Your task to perform on an android device: toggle data saver in the chrome app Image 0: 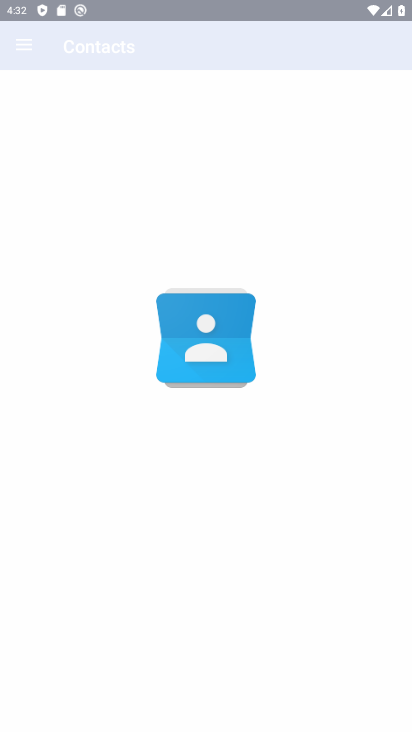
Step 0: drag from (211, 636) to (188, 278)
Your task to perform on an android device: toggle data saver in the chrome app Image 1: 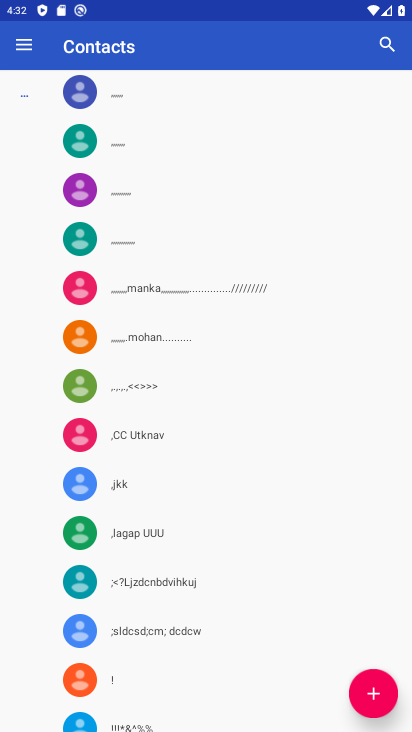
Step 1: press home button
Your task to perform on an android device: toggle data saver in the chrome app Image 2: 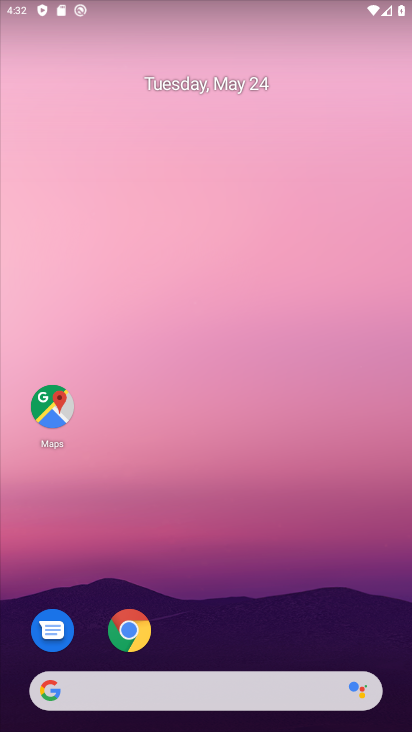
Step 2: click (128, 632)
Your task to perform on an android device: toggle data saver in the chrome app Image 3: 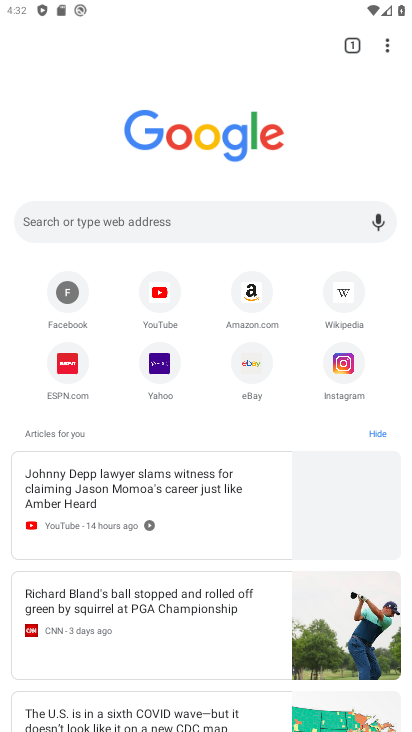
Step 3: click (394, 36)
Your task to perform on an android device: toggle data saver in the chrome app Image 4: 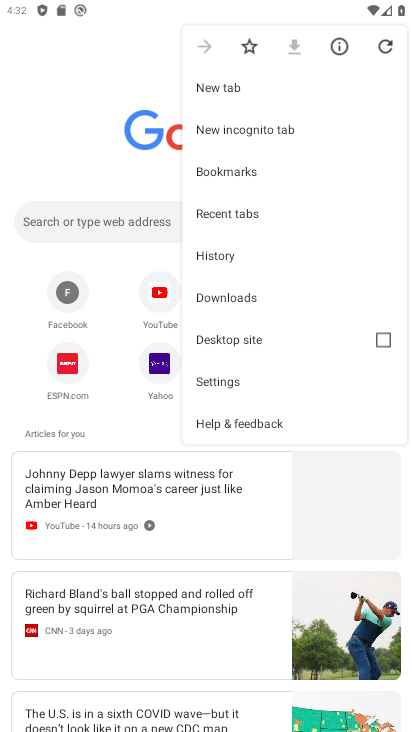
Step 4: click (238, 380)
Your task to perform on an android device: toggle data saver in the chrome app Image 5: 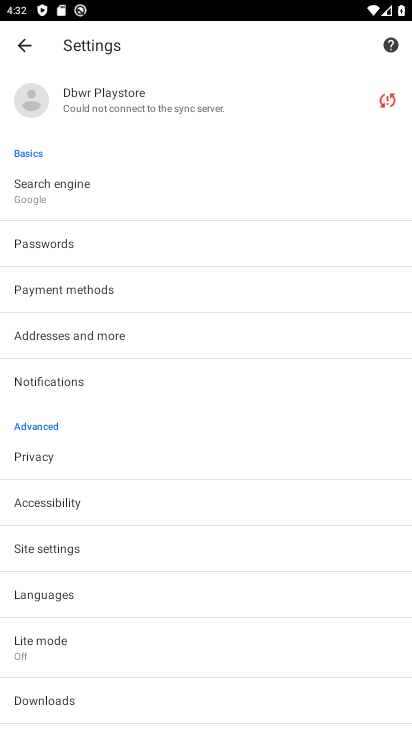
Step 5: click (75, 653)
Your task to perform on an android device: toggle data saver in the chrome app Image 6: 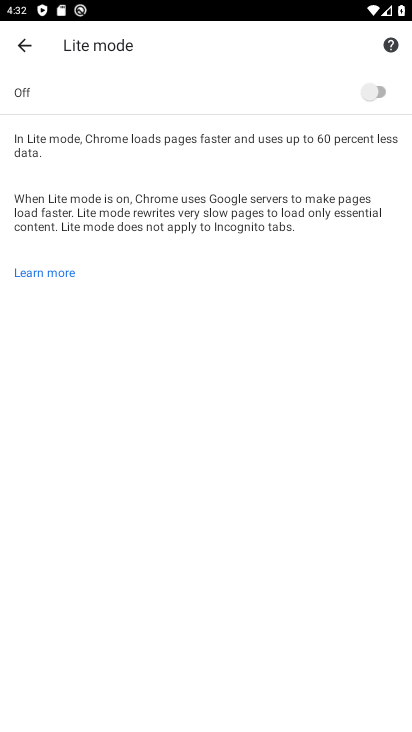
Step 6: click (377, 87)
Your task to perform on an android device: toggle data saver in the chrome app Image 7: 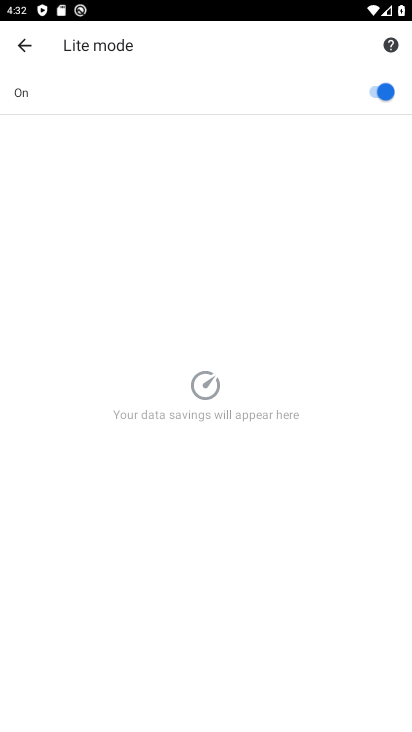
Step 7: click (377, 87)
Your task to perform on an android device: toggle data saver in the chrome app Image 8: 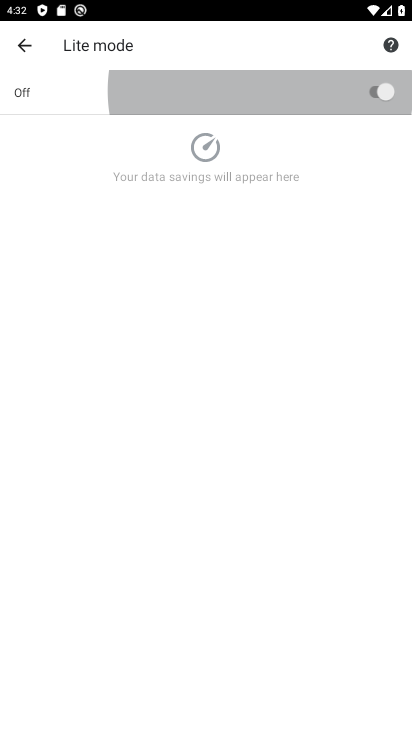
Step 8: click (377, 87)
Your task to perform on an android device: toggle data saver in the chrome app Image 9: 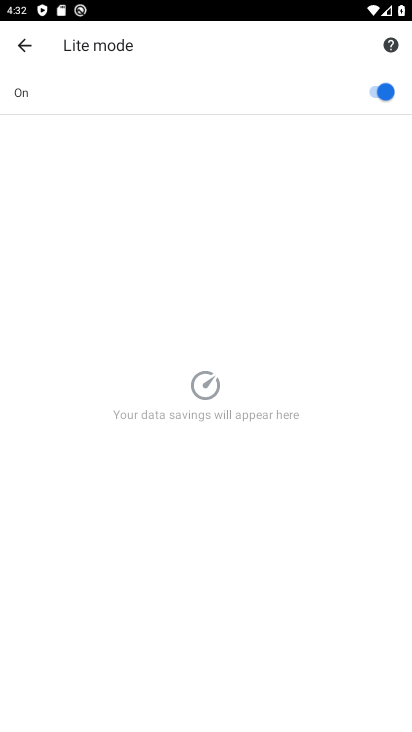
Step 9: task complete